Your task to perform on an android device: What's the weather? Image 0: 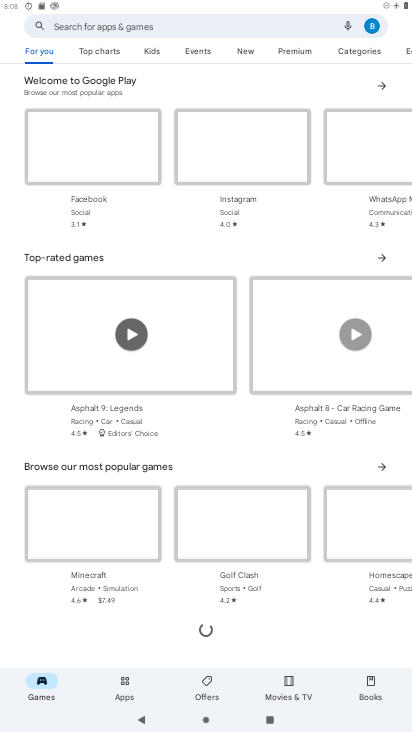
Step 0: press home button
Your task to perform on an android device: What's the weather? Image 1: 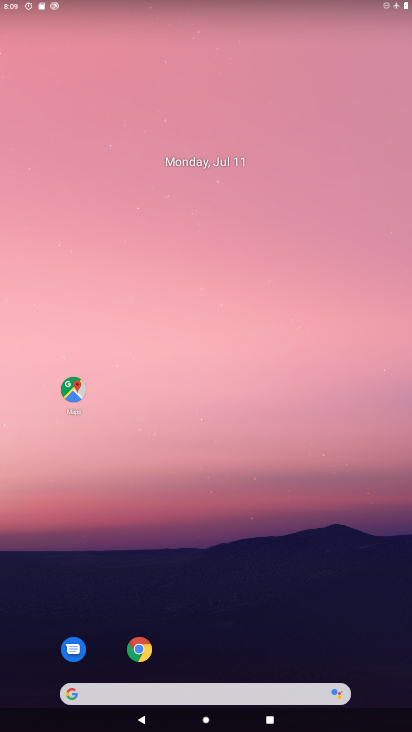
Step 1: click (142, 649)
Your task to perform on an android device: What's the weather? Image 2: 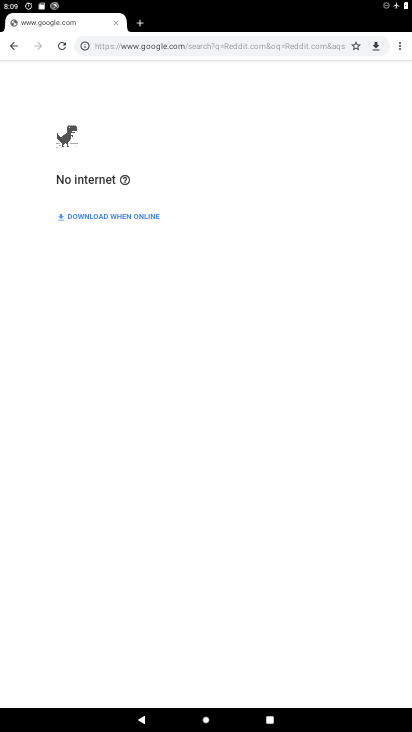
Step 2: click (236, 48)
Your task to perform on an android device: What's the weather? Image 3: 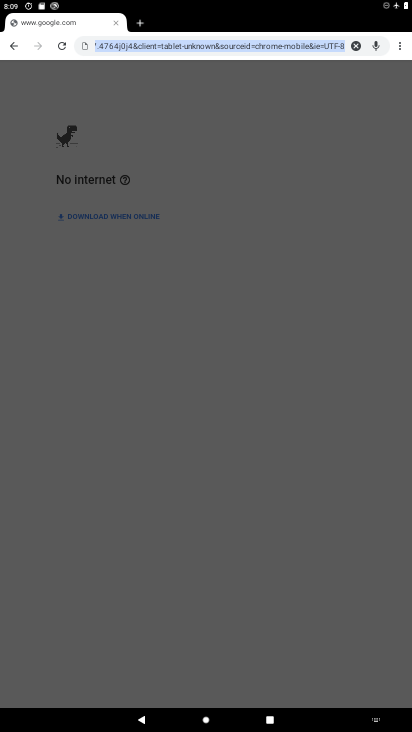
Step 3: type "weather"
Your task to perform on an android device: What's the weather? Image 4: 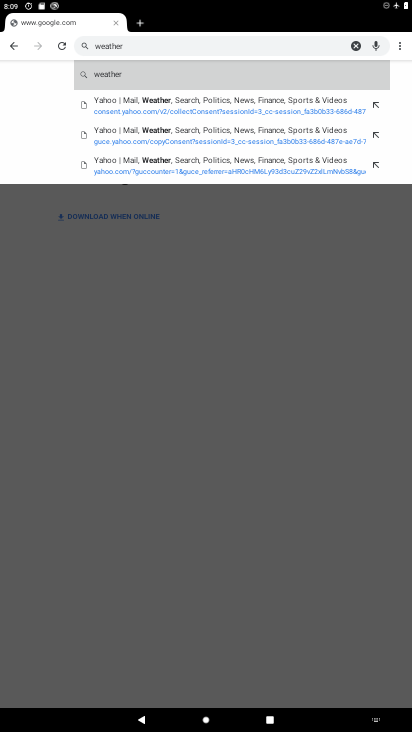
Step 4: click (112, 69)
Your task to perform on an android device: What's the weather? Image 5: 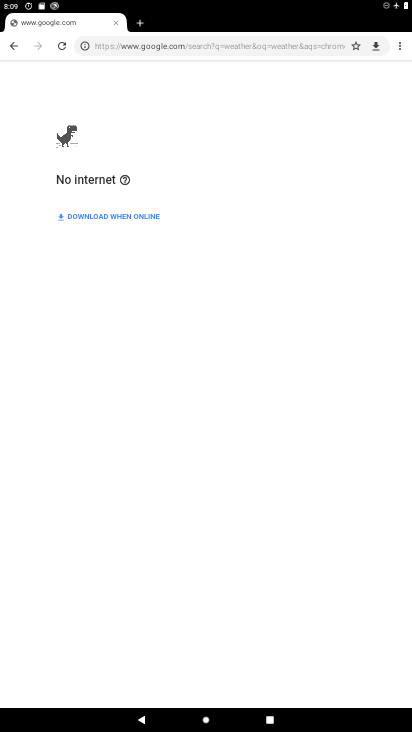
Step 5: task complete